Your task to perform on an android device: change the upload size in google photos Image 0: 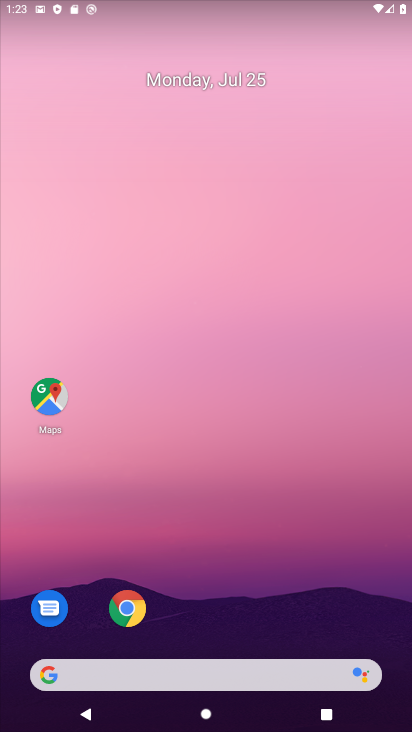
Step 0: drag from (300, 623) to (233, 7)
Your task to perform on an android device: change the upload size in google photos Image 1: 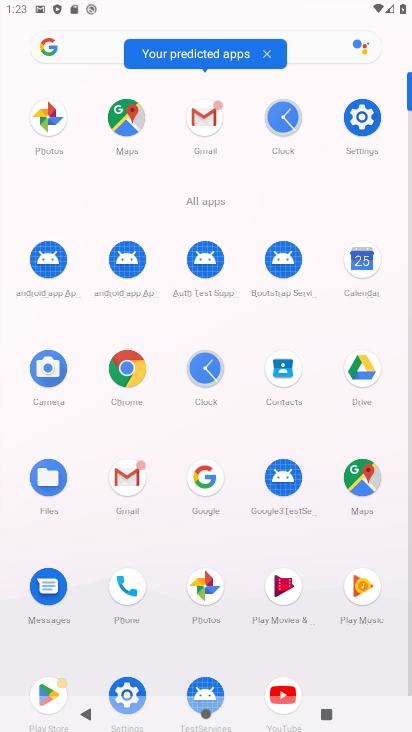
Step 1: click (207, 584)
Your task to perform on an android device: change the upload size in google photos Image 2: 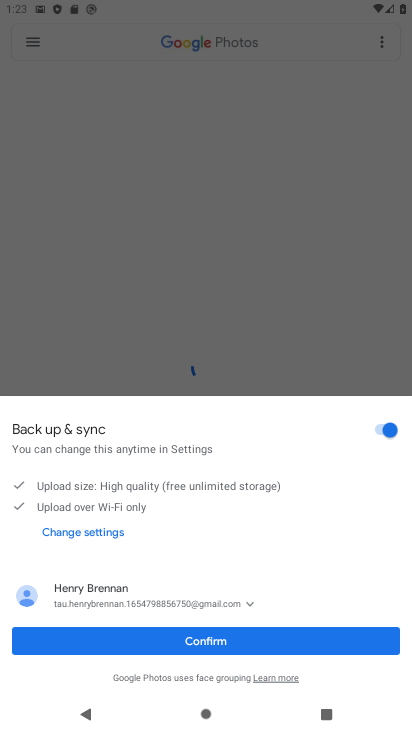
Step 2: click (229, 653)
Your task to perform on an android device: change the upload size in google photos Image 3: 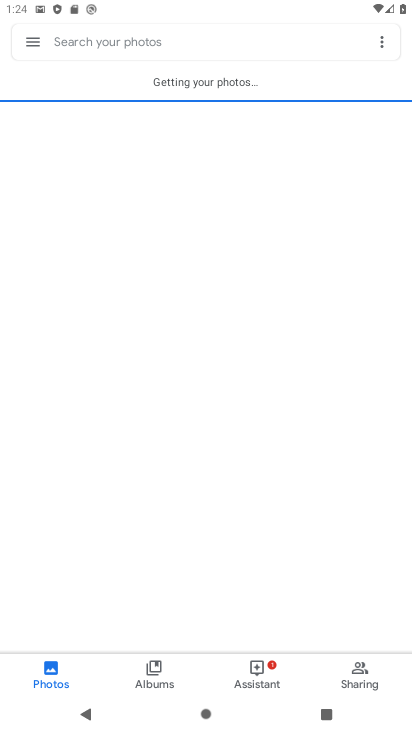
Step 3: click (34, 42)
Your task to perform on an android device: change the upload size in google photos Image 4: 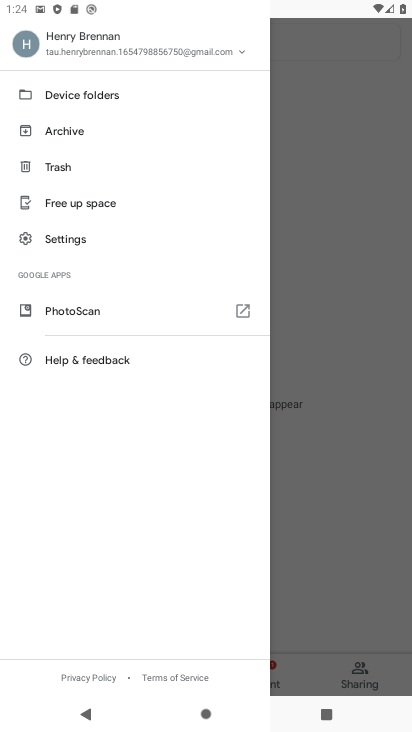
Step 4: click (84, 240)
Your task to perform on an android device: change the upload size in google photos Image 5: 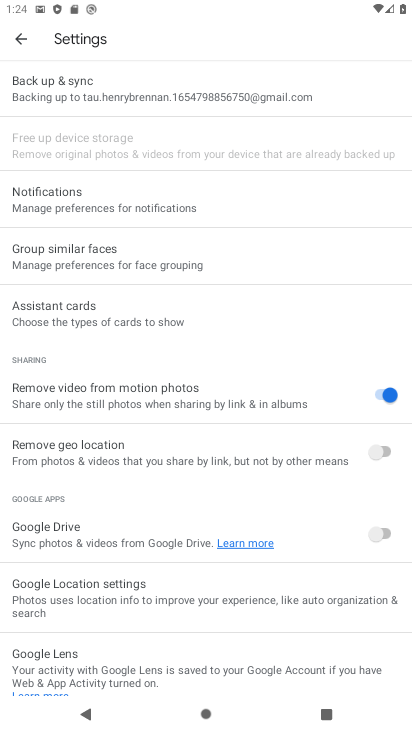
Step 5: click (150, 91)
Your task to perform on an android device: change the upload size in google photos Image 6: 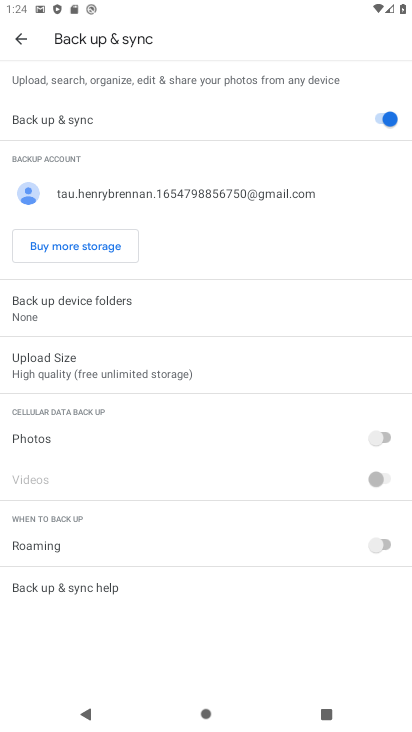
Step 6: click (144, 377)
Your task to perform on an android device: change the upload size in google photos Image 7: 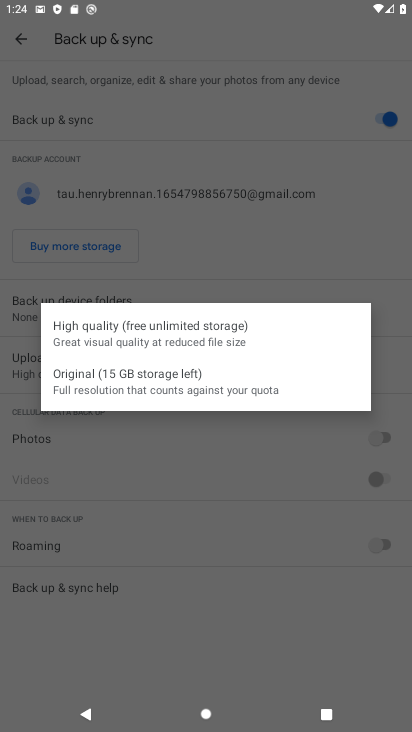
Step 7: click (127, 387)
Your task to perform on an android device: change the upload size in google photos Image 8: 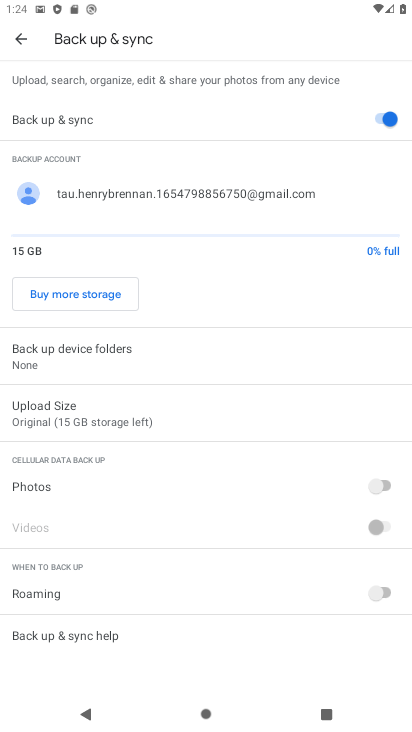
Step 8: task complete